Your task to perform on an android device: Show me recent news Image 0: 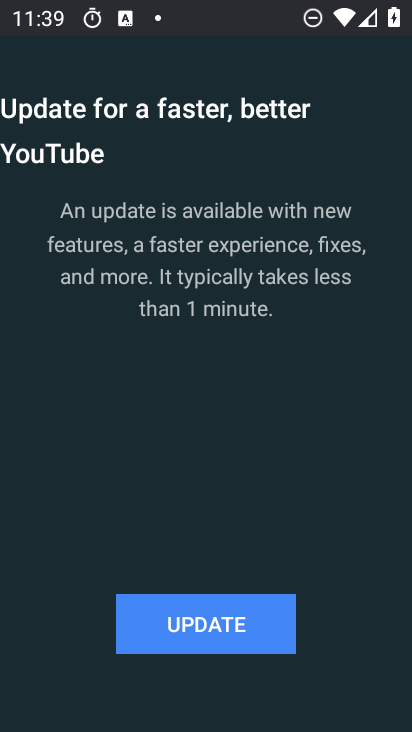
Step 0: press home button
Your task to perform on an android device: Show me recent news Image 1: 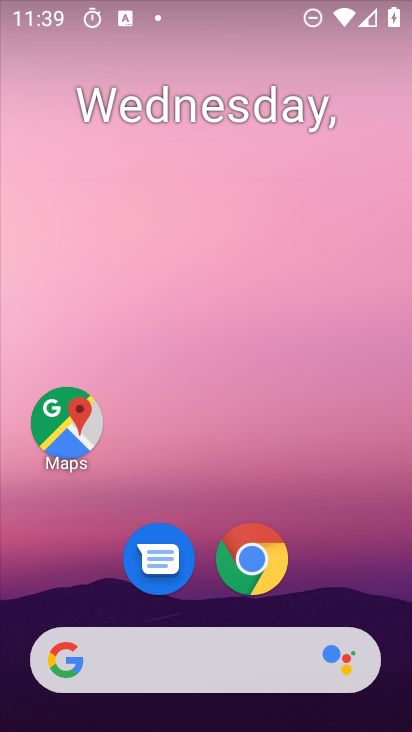
Step 1: drag from (239, 705) to (328, 87)
Your task to perform on an android device: Show me recent news Image 2: 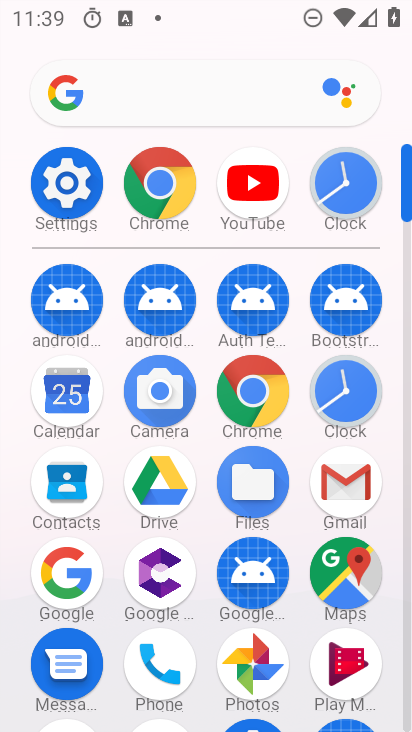
Step 2: click (79, 585)
Your task to perform on an android device: Show me recent news Image 3: 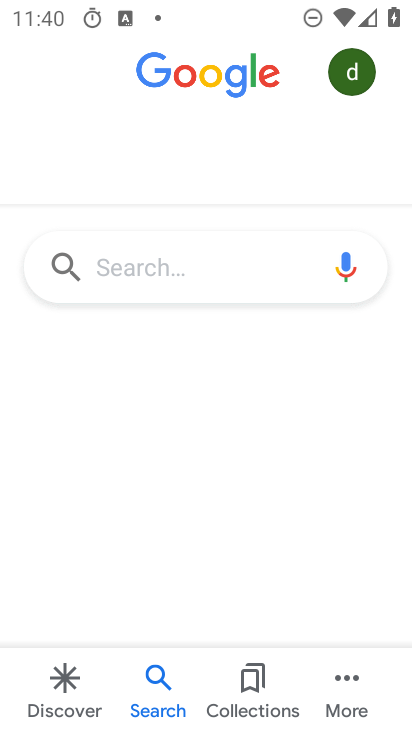
Step 3: click (201, 268)
Your task to perform on an android device: Show me recent news Image 4: 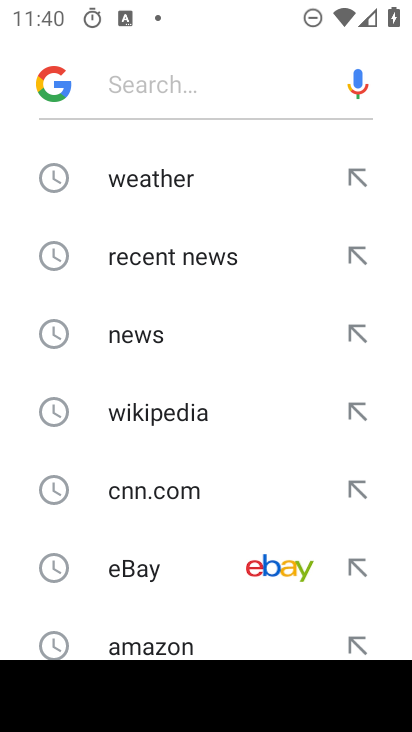
Step 4: click (214, 254)
Your task to perform on an android device: Show me recent news Image 5: 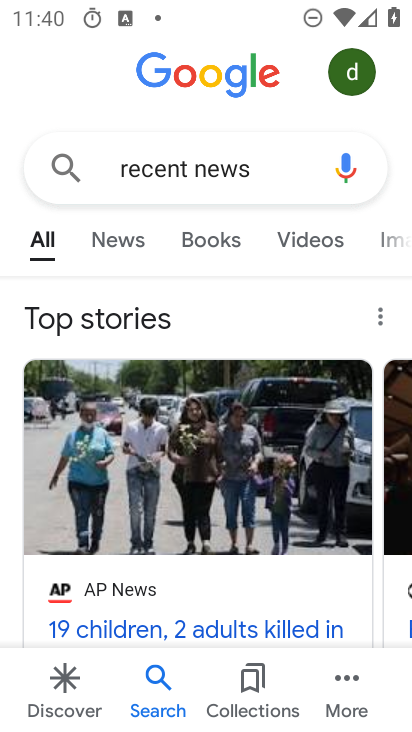
Step 5: click (135, 241)
Your task to perform on an android device: Show me recent news Image 6: 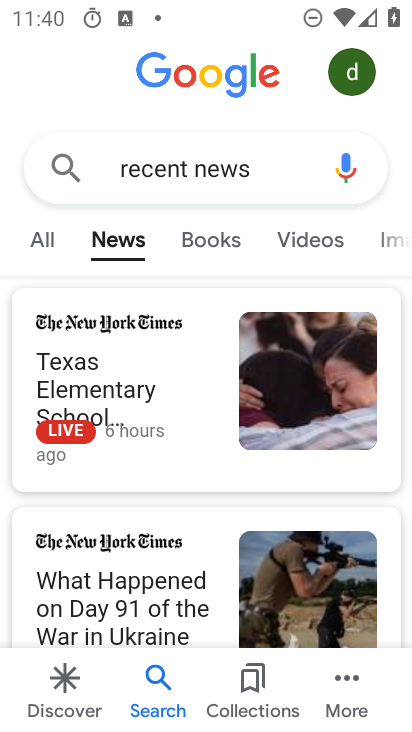
Step 6: task complete